Your task to perform on an android device: Go to Wikipedia Image 0: 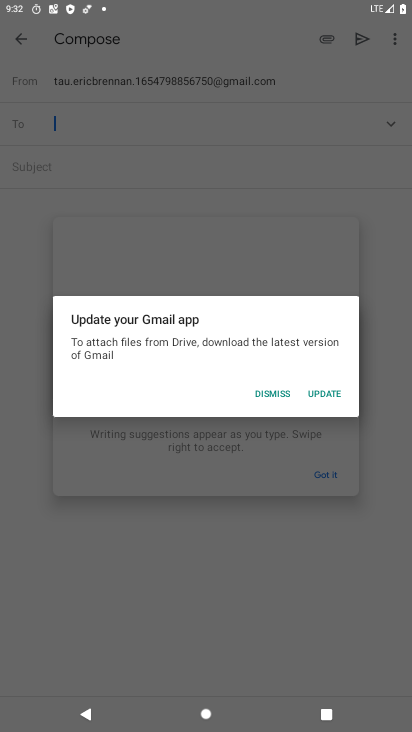
Step 0: press home button
Your task to perform on an android device: Go to Wikipedia Image 1: 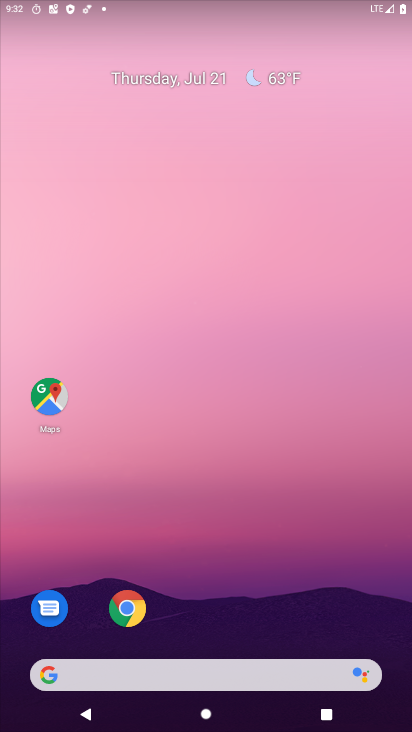
Step 1: drag from (228, 166) to (231, 71)
Your task to perform on an android device: Go to Wikipedia Image 2: 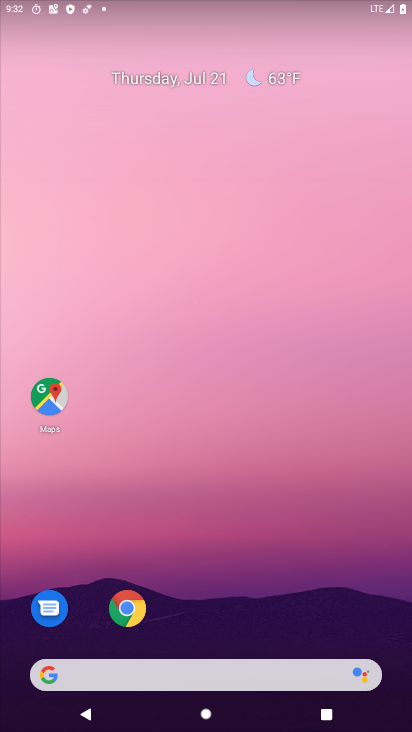
Step 2: drag from (211, 616) to (293, 42)
Your task to perform on an android device: Go to Wikipedia Image 3: 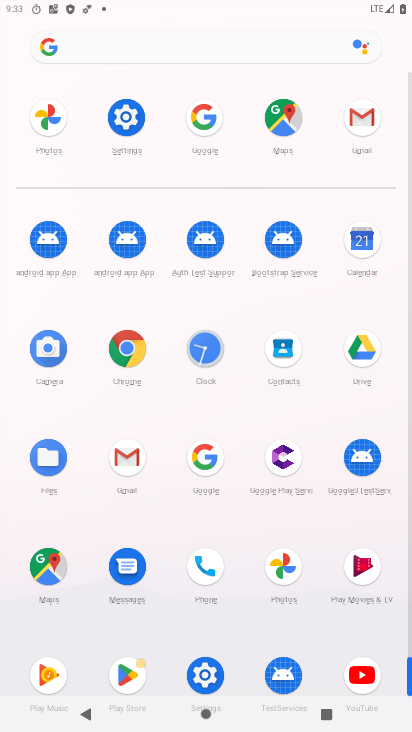
Step 3: click (121, 379)
Your task to perform on an android device: Go to Wikipedia Image 4: 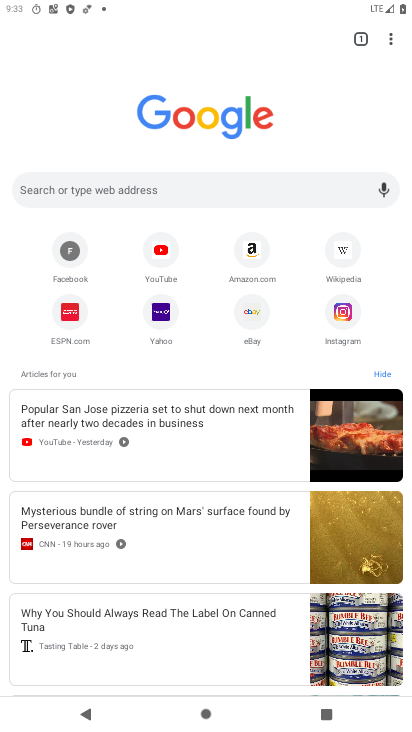
Step 4: click (348, 256)
Your task to perform on an android device: Go to Wikipedia Image 5: 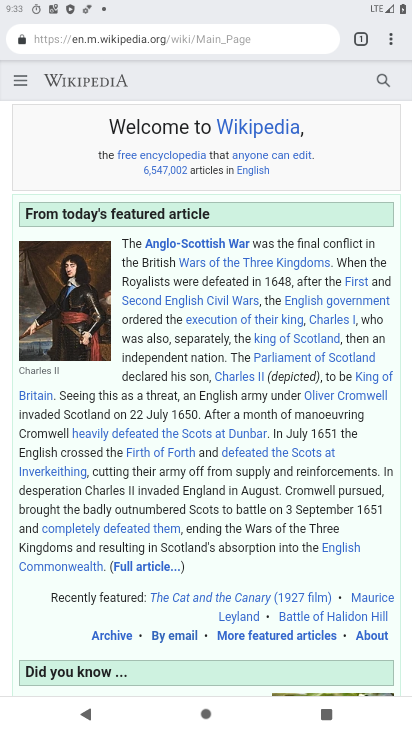
Step 5: task complete